Your task to perform on an android device: find which apps use the phone's location Image 0: 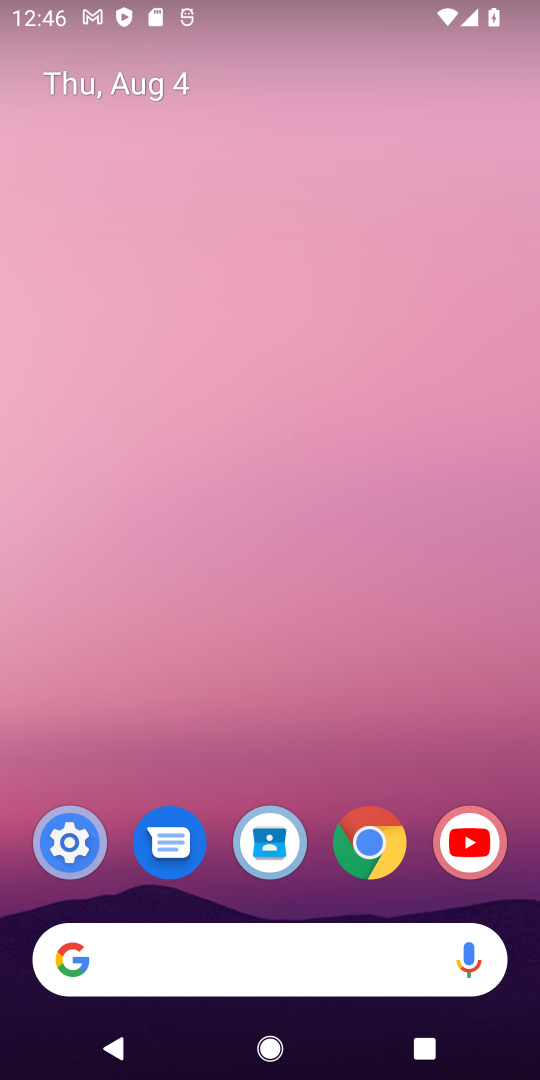
Step 0: click (60, 846)
Your task to perform on an android device: find which apps use the phone's location Image 1: 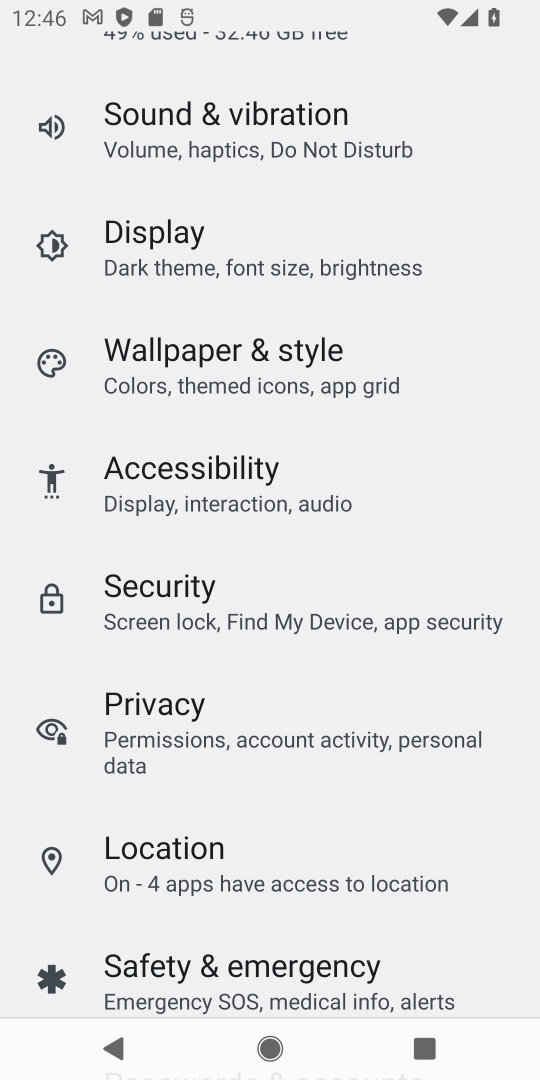
Step 1: click (246, 862)
Your task to perform on an android device: find which apps use the phone's location Image 2: 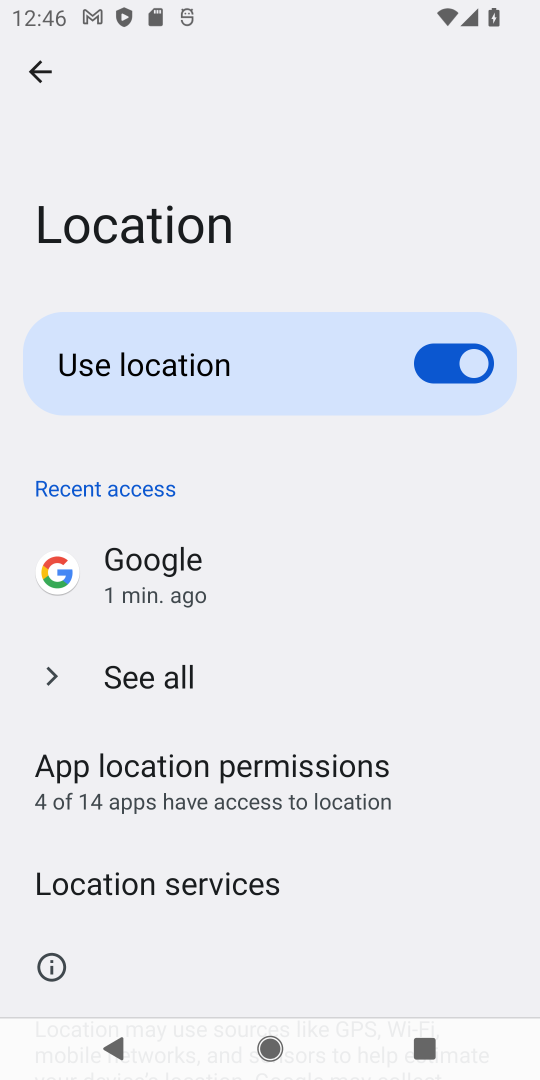
Step 2: click (270, 791)
Your task to perform on an android device: find which apps use the phone's location Image 3: 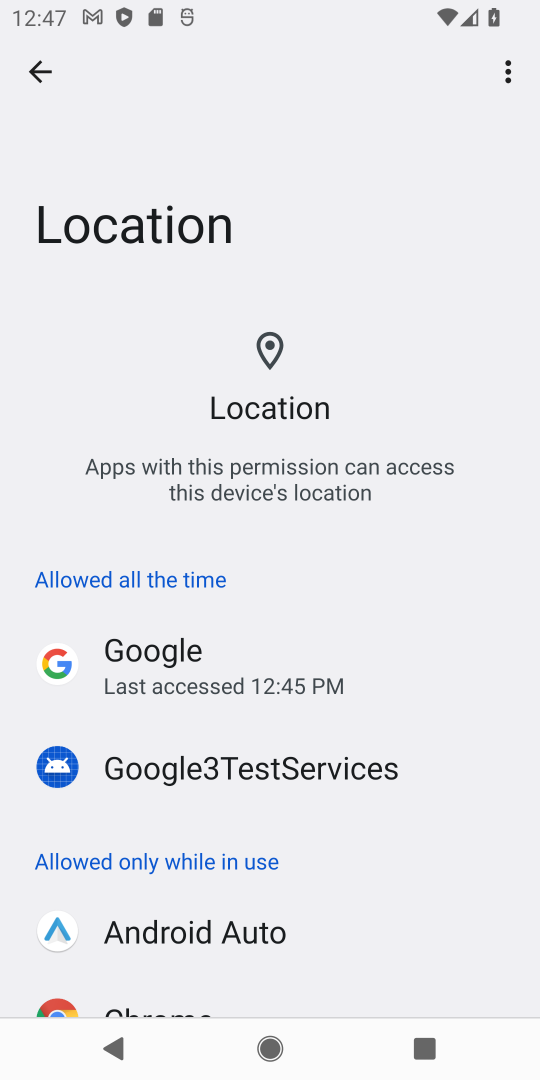
Step 3: task complete